Your task to perform on an android device: check google app version Image 0: 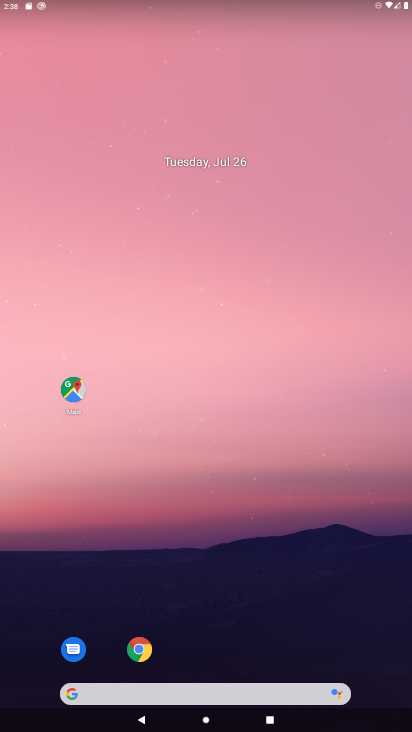
Step 0: drag from (207, 689) to (247, 118)
Your task to perform on an android device: check google app version Image 1: 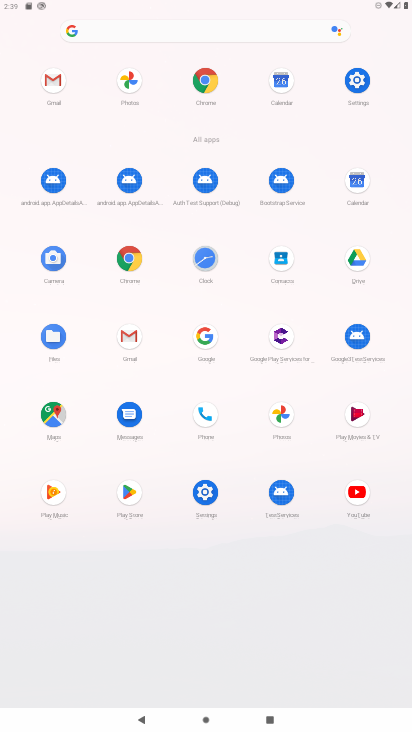
Step 1: click (205, 335)
Your task to perform on an android device: check google app version Image 2: 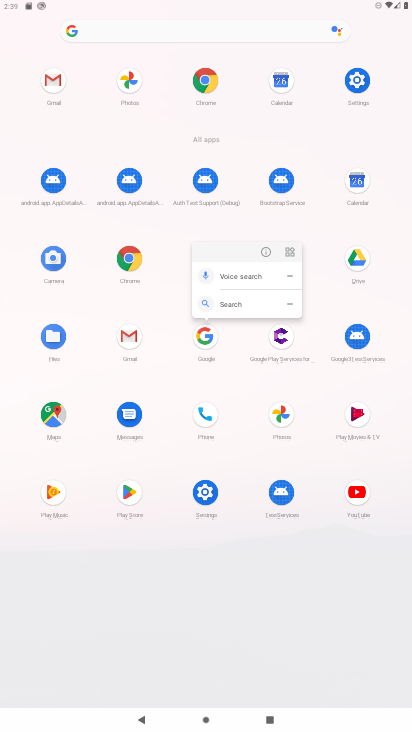
Step 2: click (264, 250)
Your task to perform on an android device: check google app version Image 3: 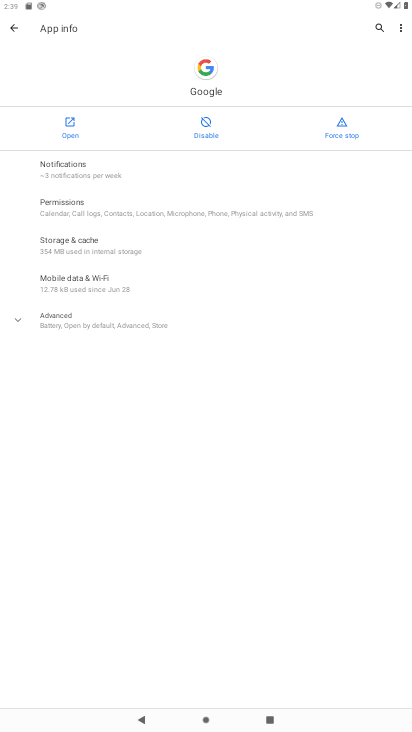
Step 3: click (91, 315)
Your task to perform on an android device: check google app version Image 4: 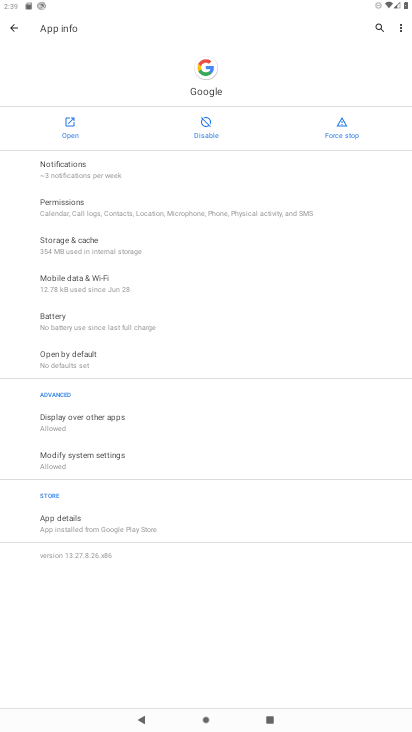
Step 4: task complete